Your task to perform on an android device: Show me the alarms in the clock app Image 0: 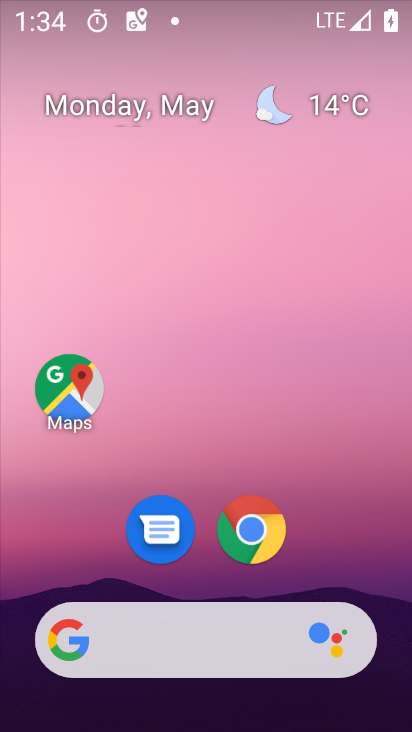
Step 0: drag from (381, 589) to (368, 274)
Your task to perform on an android device: Show me the alarms in the clock app Image 1: 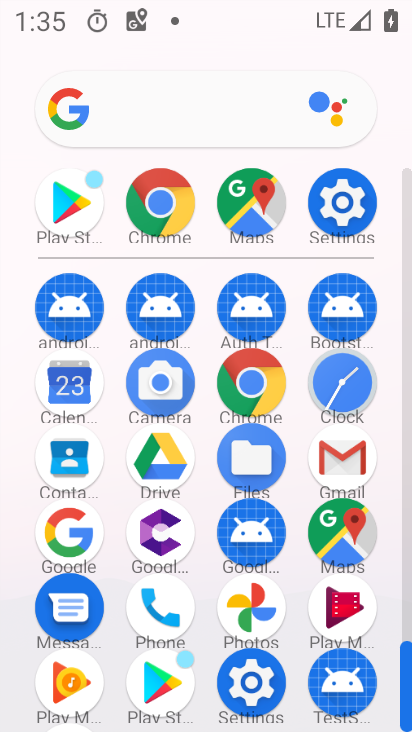
Step 1: click (340, 383)
Your task to perform on an android device: Show me the alarms in the clock app Image 2: 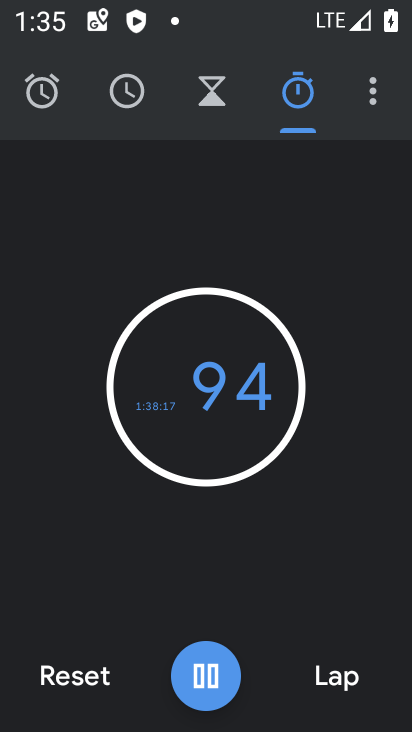
Step 2: click (42, 102)
Your task to perform on an android device: Show me the alarms in the clock app Image 3: 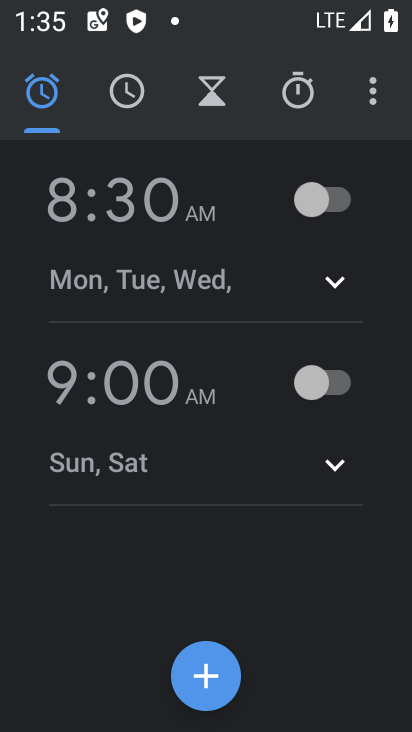
Step 3: task complete